Your task to perform on an android device: Google the capital of Brazil Image 0: 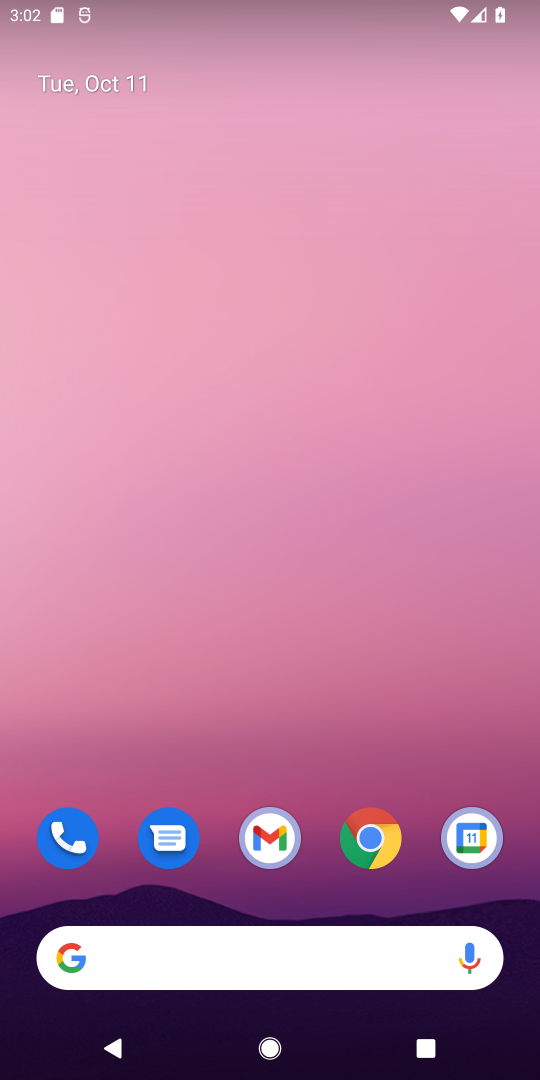
Step 0: click (366, 840)
Your task to perform on an android device: Google the capital of Brazil Image 1: 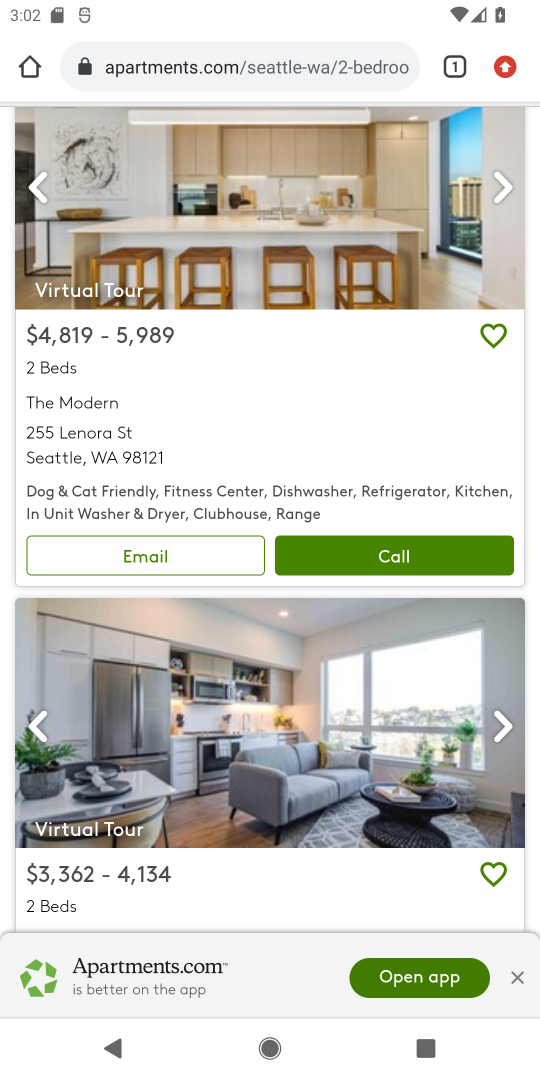
Step 1: drag from (338, 465) to (323, 323)
Your task to perform on an android device: Google the capital of Brazil Image 2: 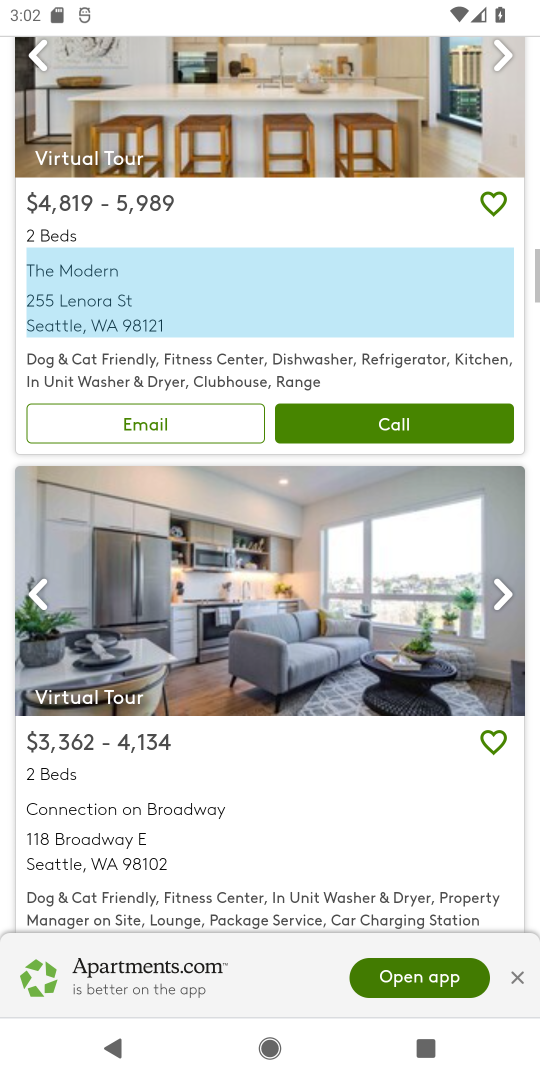
Step 2: click (144, 64)
Your task to perform on an android device: Google the capital of Brazil Image 3: 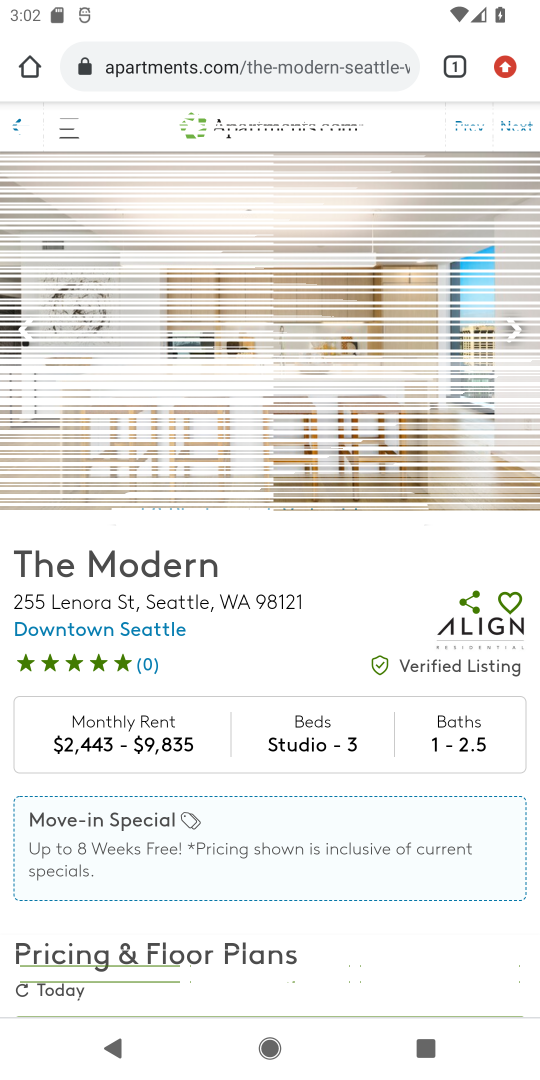
Step 3: click (328, 60)
Your task to perform on an android device: Google the capital of Brazil Image 4: 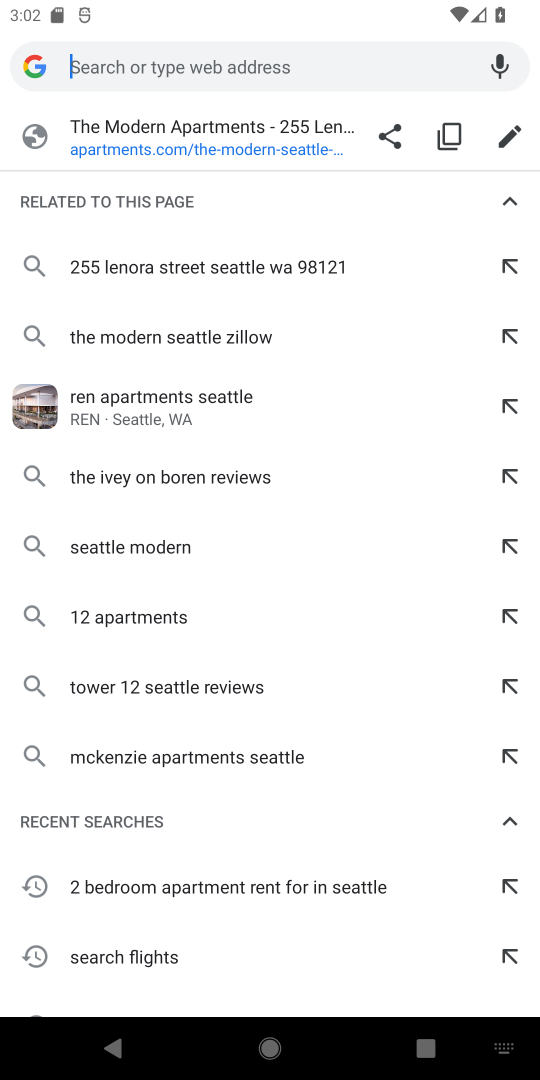
Step 4: type "capital of brazil"
Your task to perform on an android device: Google the capital of Brazil Image 5: 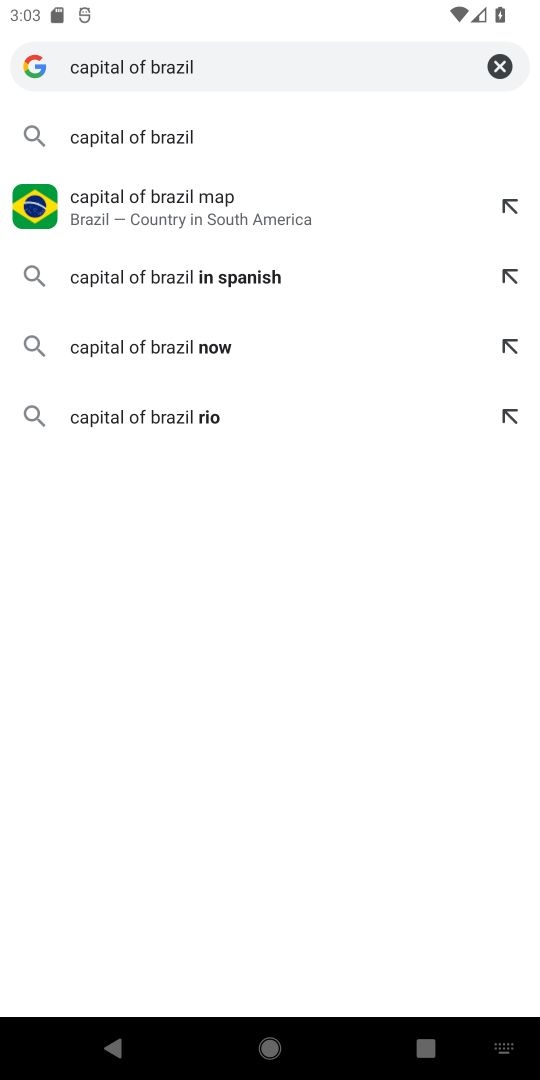
Step 5: click (156, 133)
Your task to perform on an android device: Google the capital of Brazil Image 6: 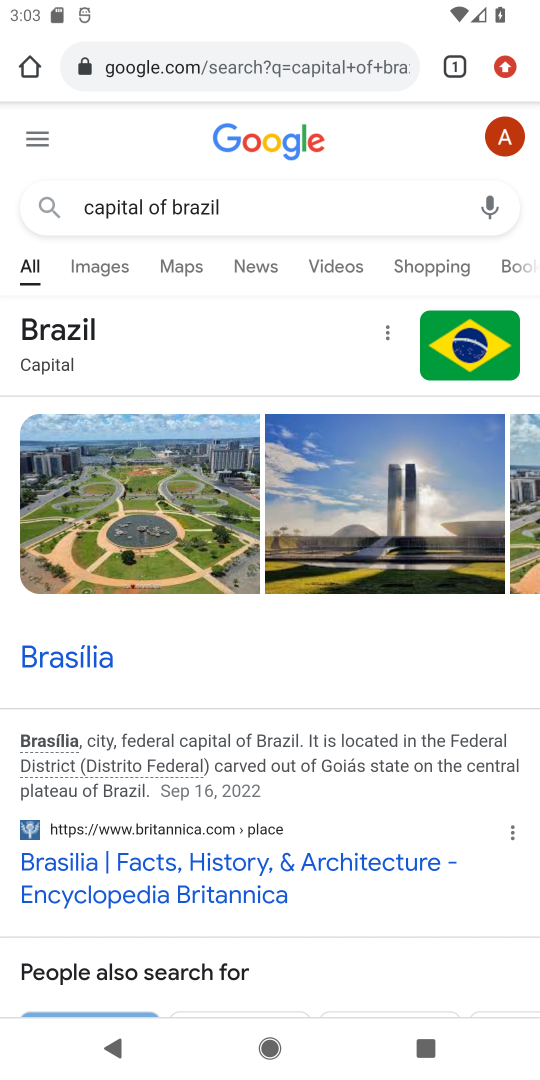
Step 6: drag from (171, 634) to (174, 184)
Your task to perform on an android device: Google the capital of Brazil Image 7: 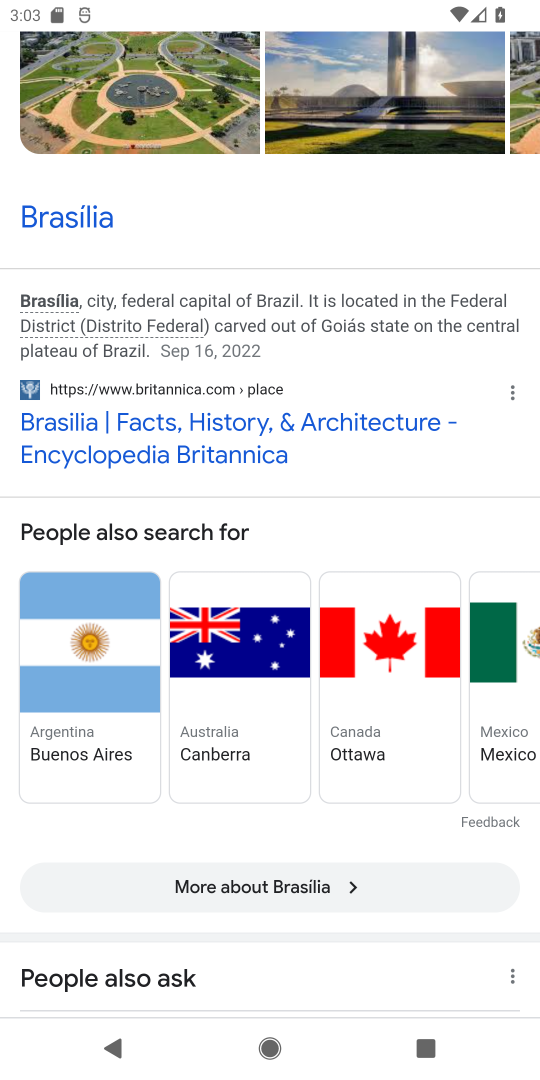
Step 7: drag from (177, 804) to (181, 244)
Your task to perform on an android device: Google the capital of Brazil Image 8: 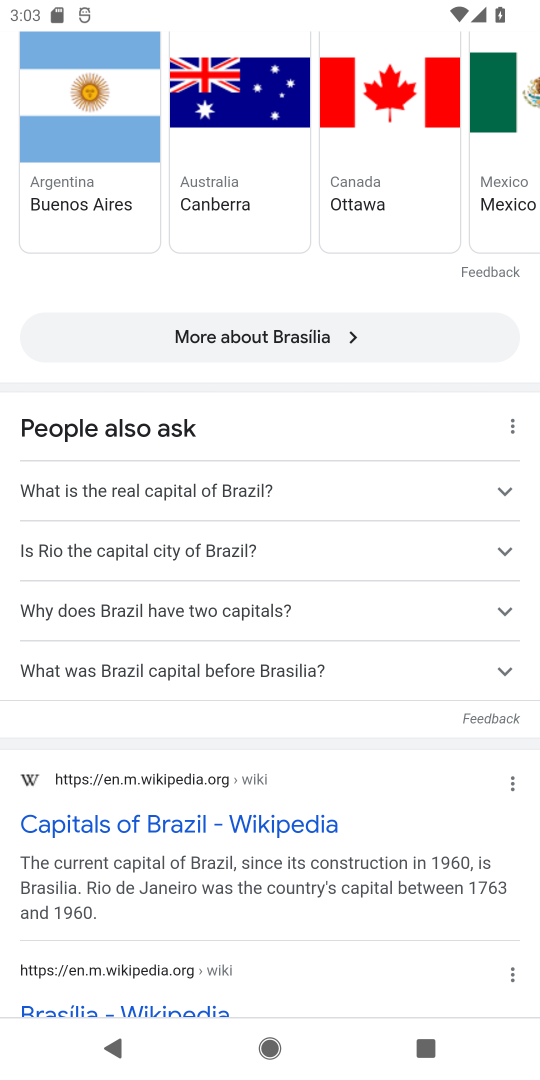
Step 8: click (181, 829)
Your task to perform on an android device: Google the capital of Brazil Image 9: 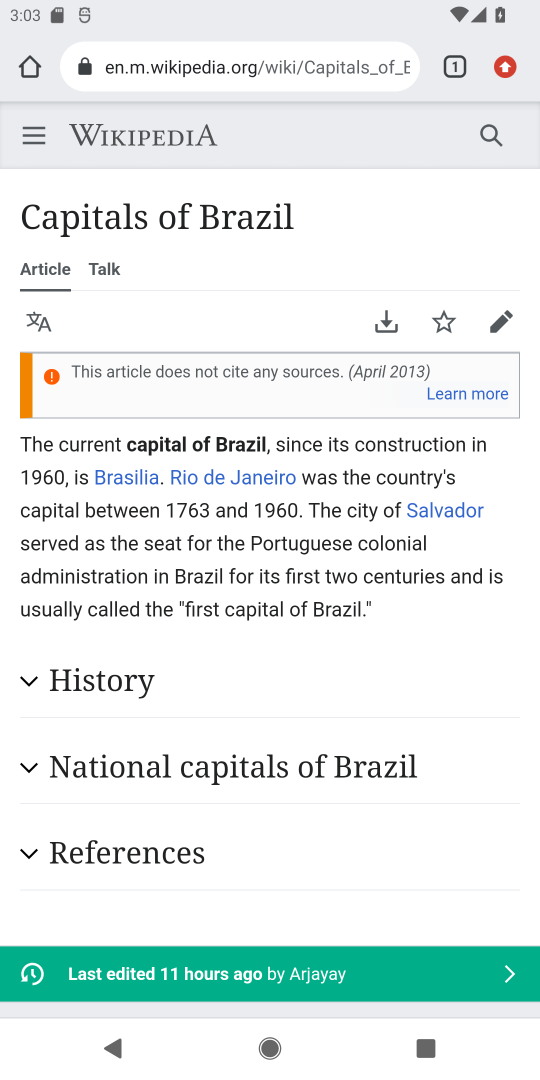
Step 9: drag from (285, 609) to (285, 289)
Your task to perform on an android device: Google the capital of Brazil Image 10: 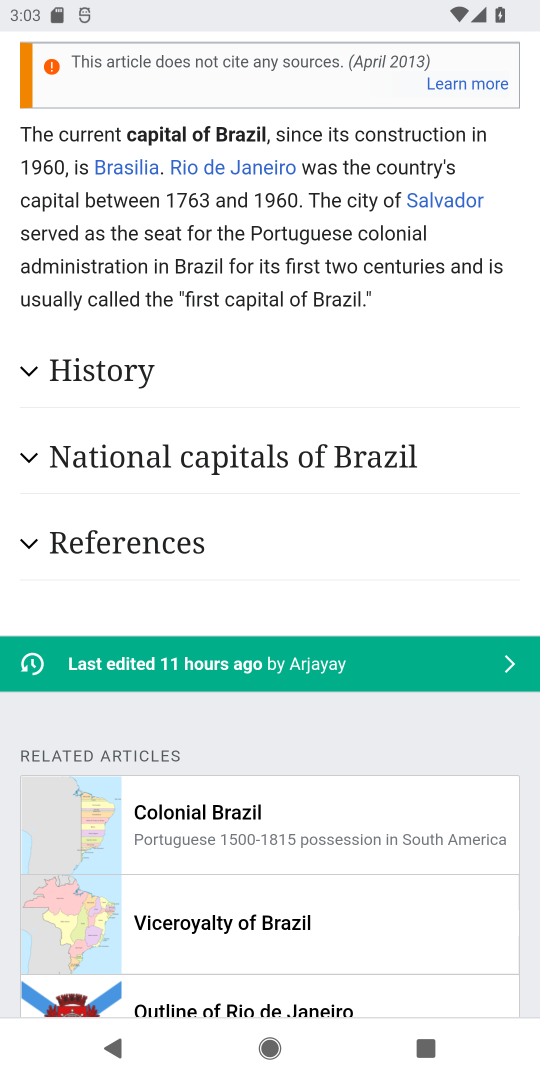
Step 10: drag from (269, 808) to (275, 455)
Your task to perform on an android device: Google the capital of Brazil Image 11: 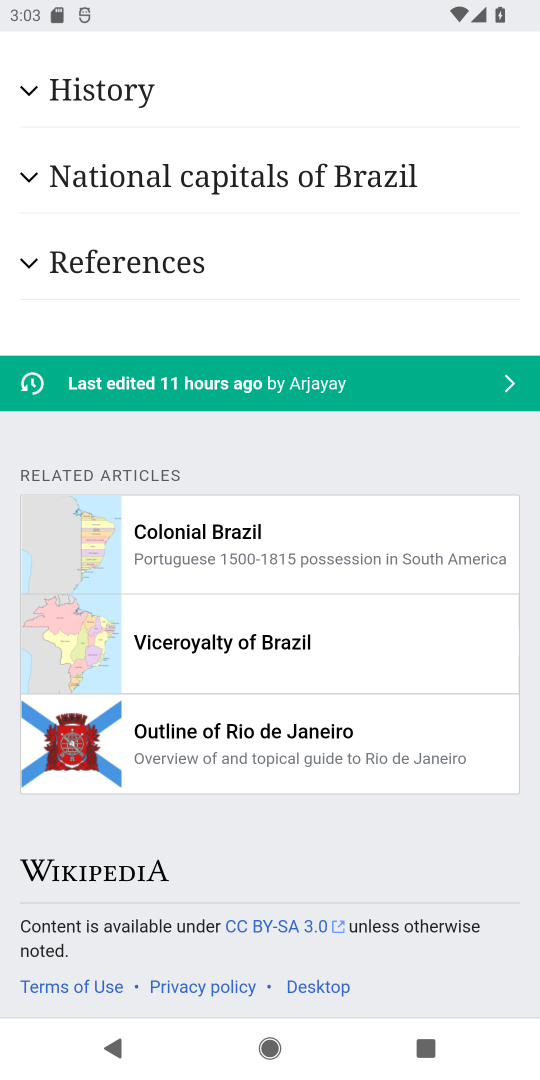
Step 11: drag from (342, 306) to (335, 1002)
Your task to perform on an android device: Google the capital of Brazil Image 12: 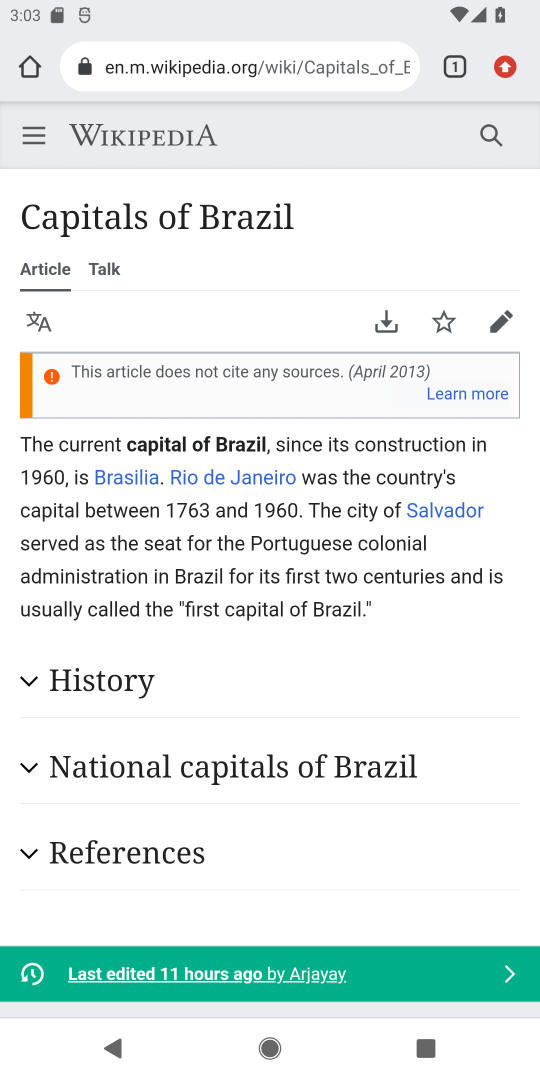
Step 12: drag from (274, 633) to (294, 759)
Your task to perform on an android device: Google the capital of Brazil Image 13: 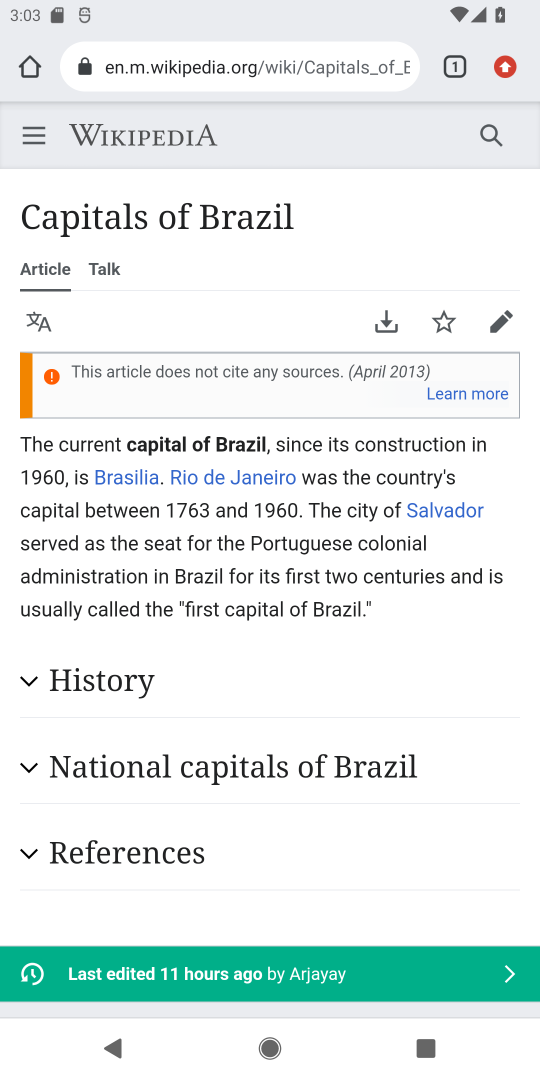
Step 13: click (235, 770)
Your task to perform on an android device: Google the capital of Brazil Image 14: 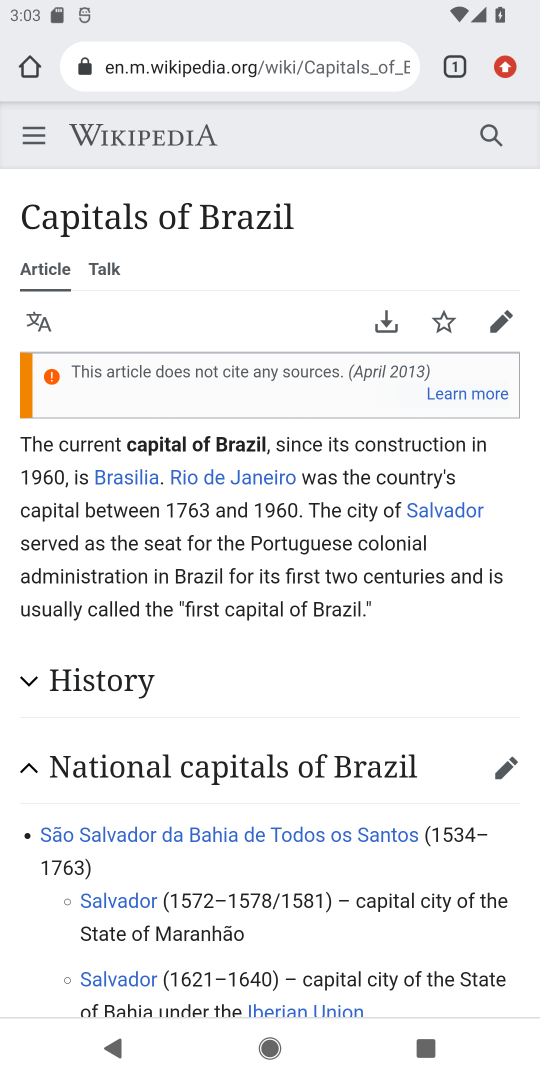
Step 14: task complete